Your task to perform on an android device: turn smart compose on in the gmail app Image 0: 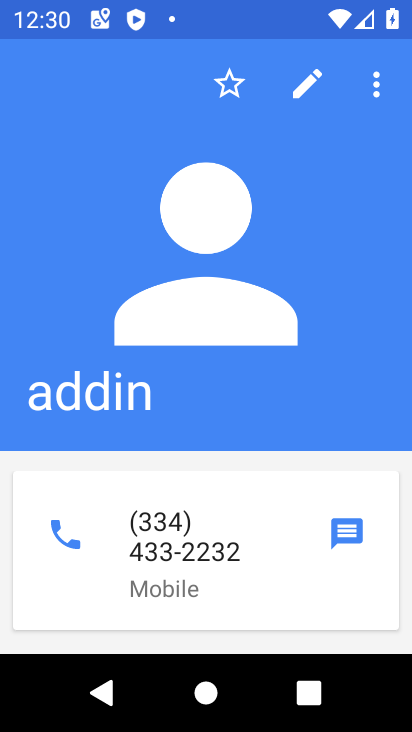
Step 0: press home button
Your task to perform on an android device: turn smart compose on in the gmail app Image 1: 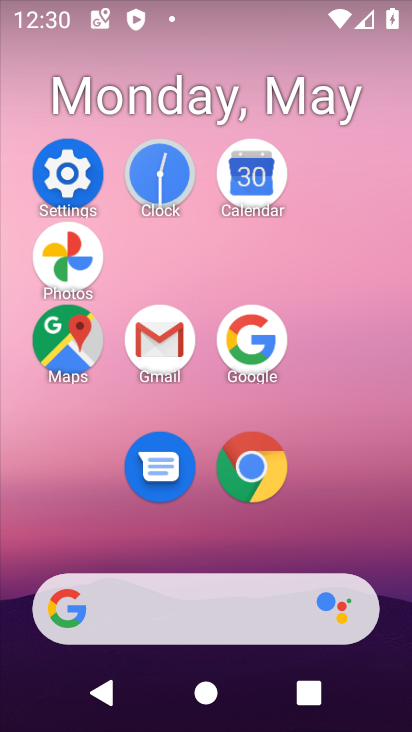
Step 1: click (163, 349)
Your task to perform on an android device: turn smart compose on in the gmail app Image 2: 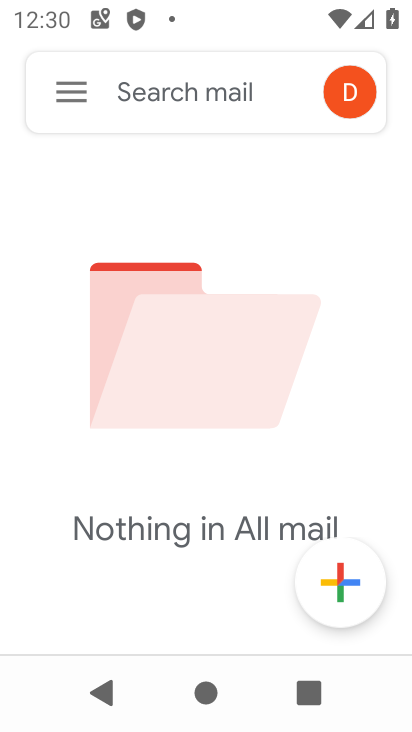
Step 2: click (57, 90)
Your task to perform on an android device: turn smart compose on in the gmail app Image 3: 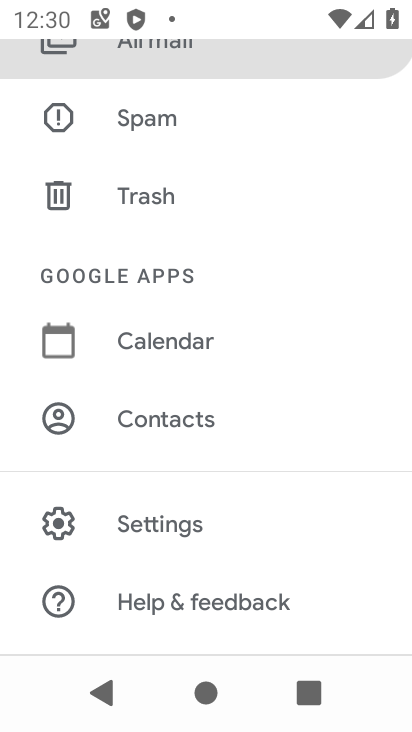
Step 3: click (279, 208)
Your task to perform on an android device: turn smart compose on in the gmail app Image 4: 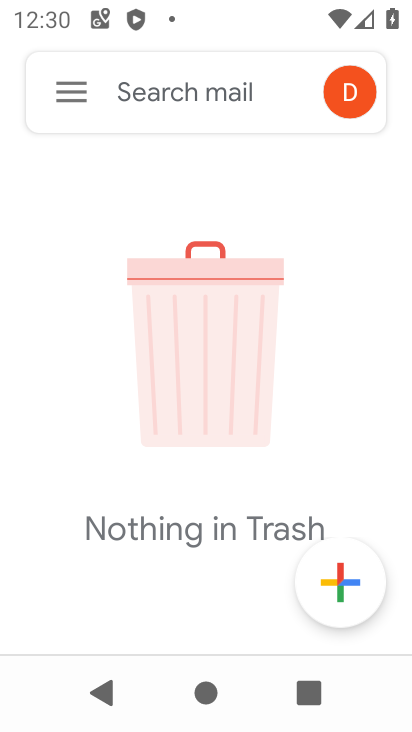
Step 4: click (170, 545)
Your task to perform on an android device: turn smart compose on in the gmail app Image 5: 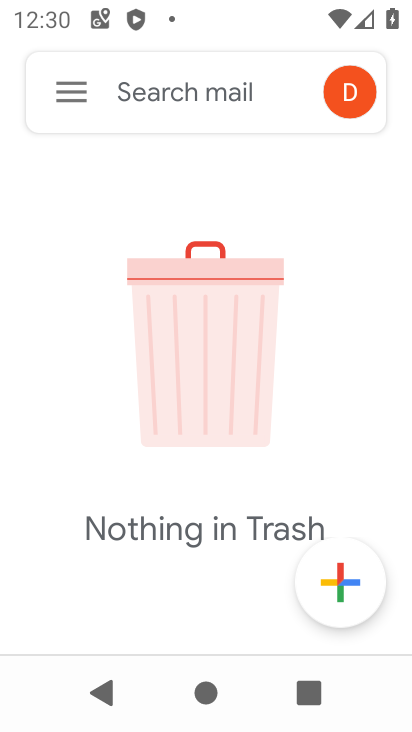
Step 5: click (99, 83)
Your task to perform on an android device: turn smart compose on in the gmail app Image 6: 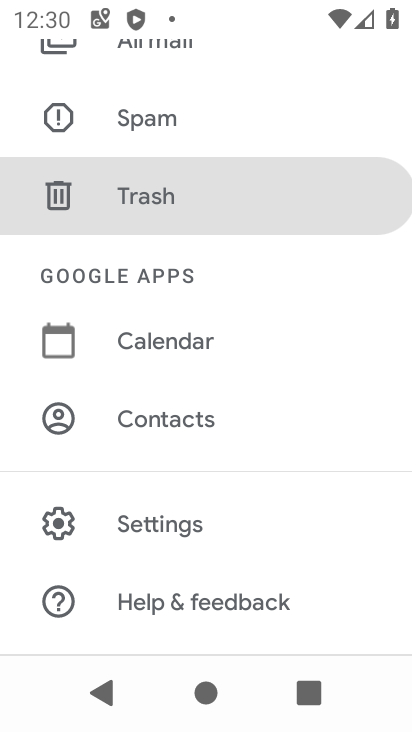
Step 6: click (158, 530)
Your task to perform on an android device: turn smart compose on in the gmail app Image 7: 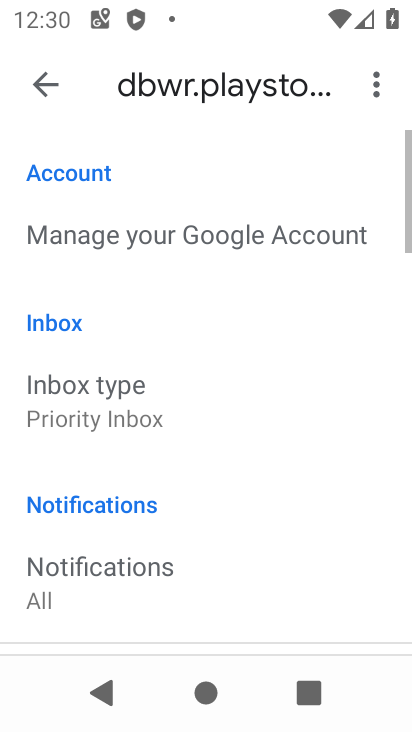
Step 7: task complete